Your task to perform on an android device: allow notifications from all sites in the chrome app Image 0: 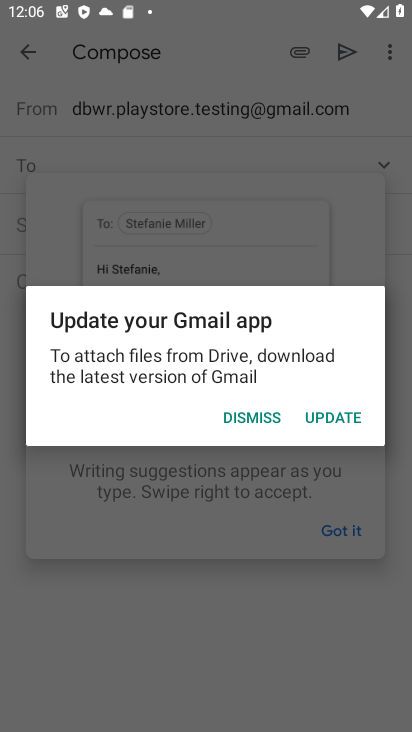
Step 0: task complete